Your task to perform on an android device: Open Chrome and go to the settings page Image 0: 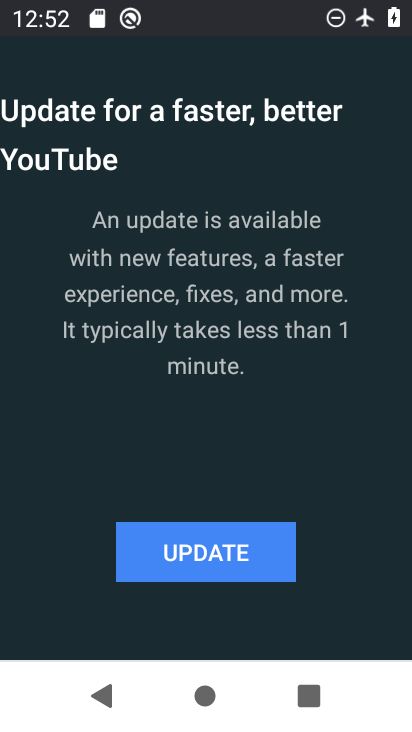
Step 0: press back button
Your task to perform on an android device: Open Chrome and go to the settings page Image 1: 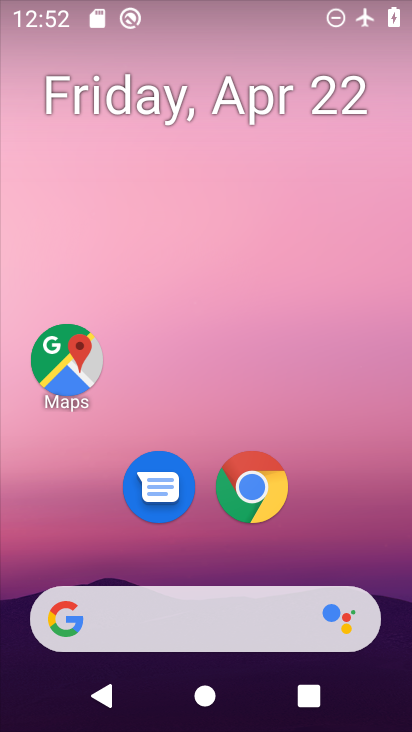
Step 1: drag from (324, 530) to (330, 184)
Your task to perform on an android device: Open Chrome and go to the settings page Image 2: 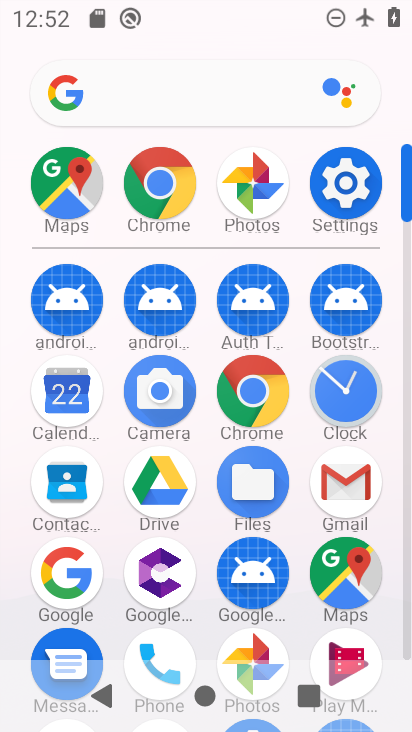
Step 2: click (262, 380)
Your task to perform on an android device: Open Chrome and go to the settings page Image 3: 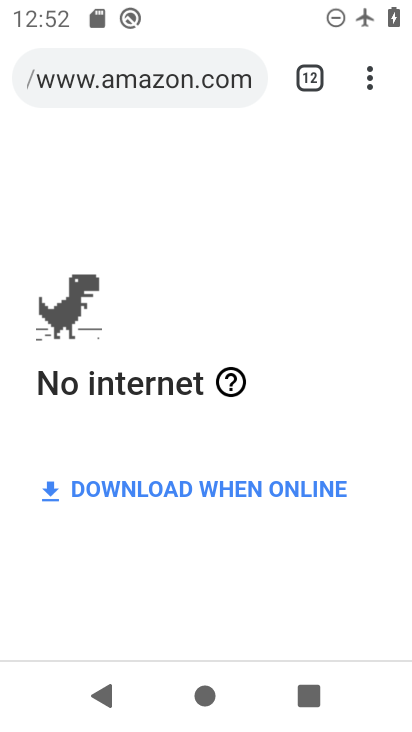
Step 3: click (364, 66)
Your task to perform on an android device: Open Chrome and go to the settings page Image 4: 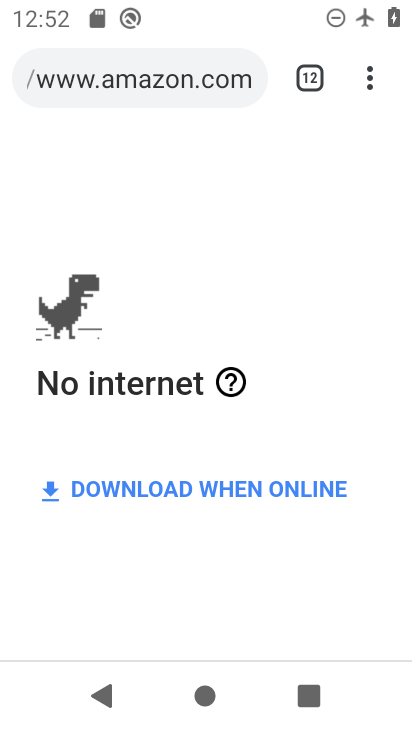
Step 4: click (354, 74)
Your task to perform on an android device: Open Chrome and go to the settings page Image 5: 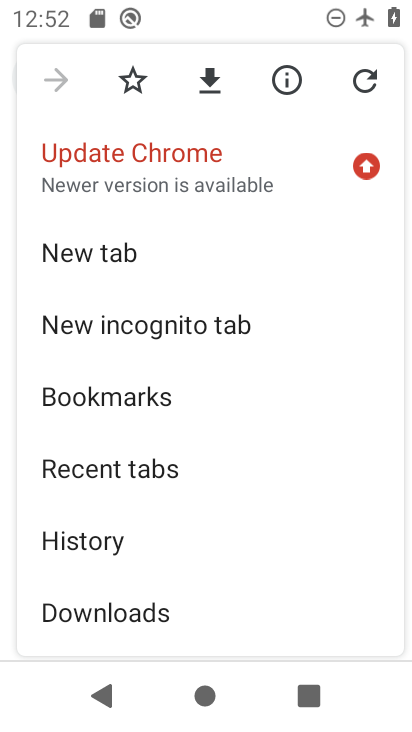
Step 5: drag from (220, 540) to (251, 197)
Your task to perform on an android device: Open Chrome and go to the settings page Image 6: 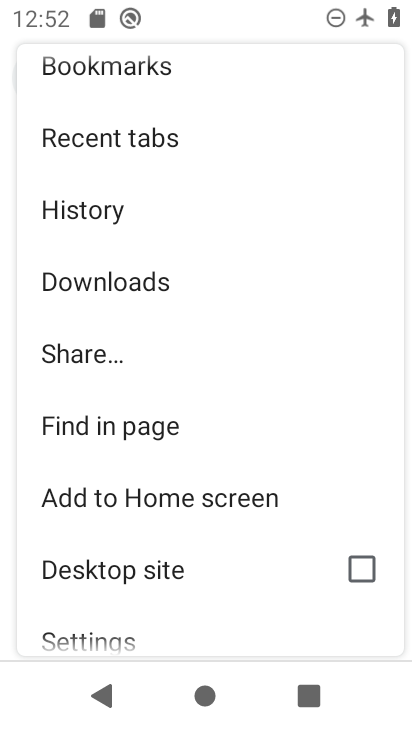
Step 6: drag from (160, 593) to (235, 273)
Your task to perform on an android device: Open Chrome and go to the settings page Image 7: 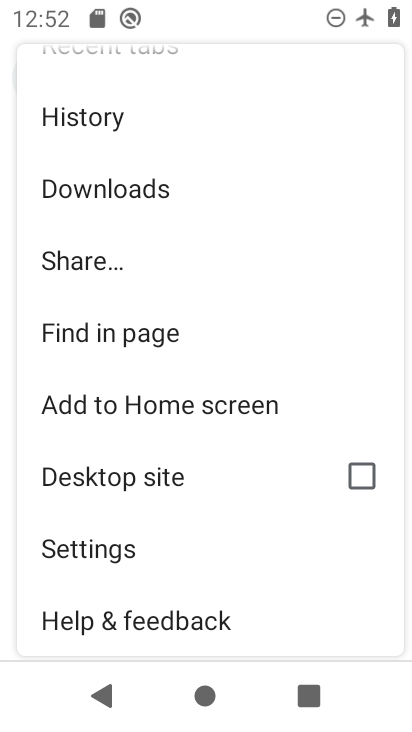
Step 7: click (163, 556)
Your task to perform on an android device: Open Chrome and go to the settings page Image 8: 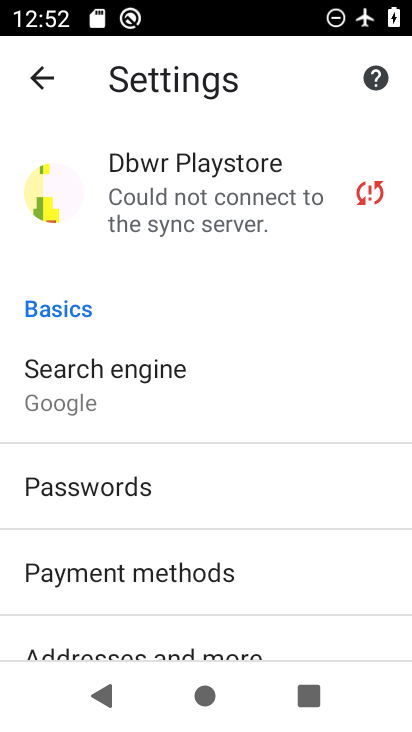
Step 8: task complete